Your task to perform on an android device: check storage Image 0: 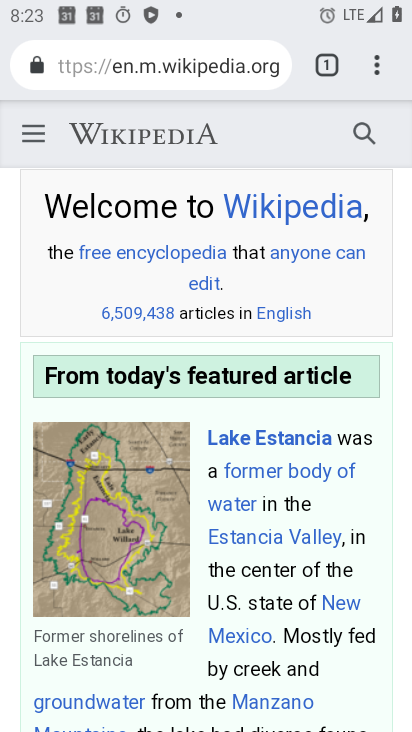
Step 0: press home button
Your task to perform on an android device: check storage Image 1: 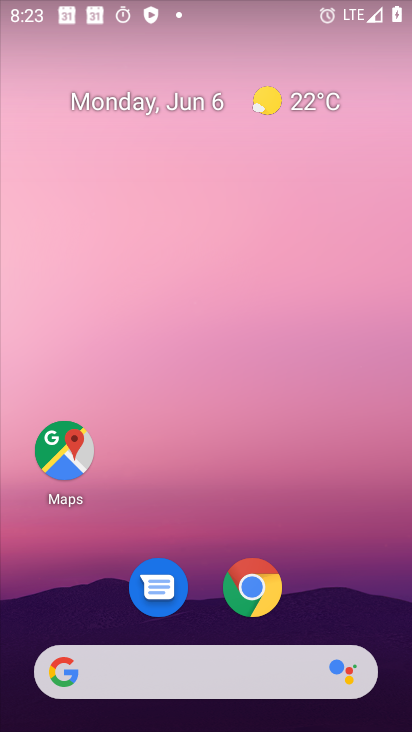
Step 1: drag from (200, 643) to (178, 258)
Your task to perform on an android device: check storage Image 2: 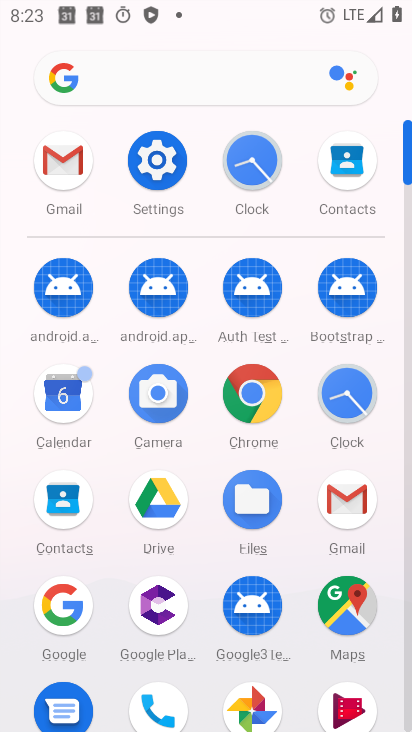
Step 2: click (150, 152)
Your task to perform on an android device: check storage Image 3: 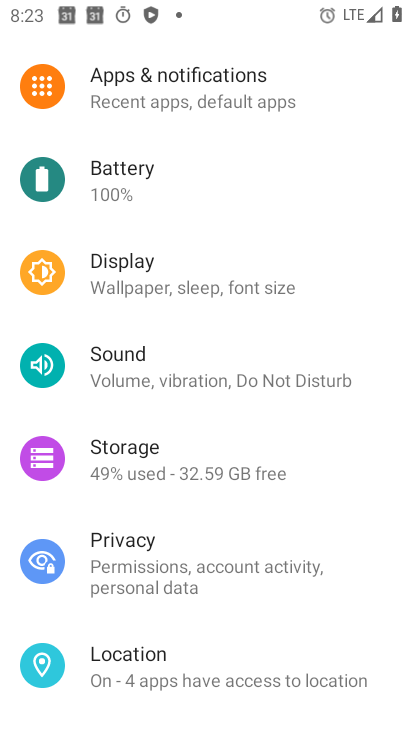
Step 3: click (150, 473)
Your task to perform on an android device: check storage Image 4: 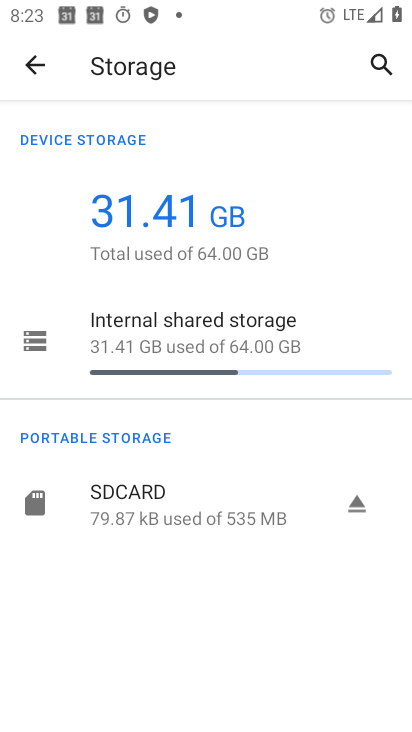
Step 4: task complete